Your task to perform on an android device: Open Android settings Image 0: 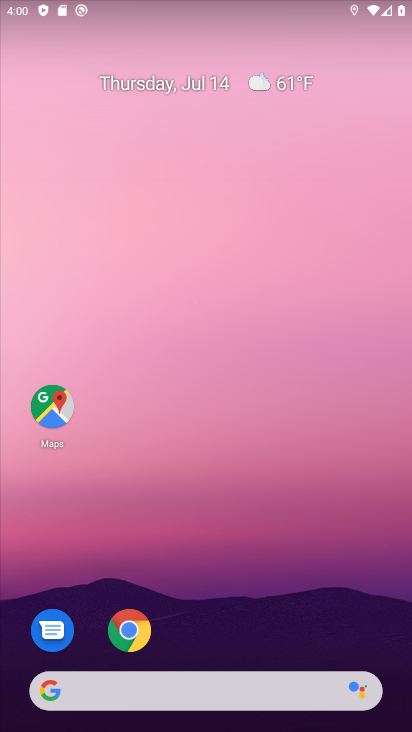
Step 0: drag from (240, 647) to (95, 74)
Your task to perform on an android device: Open Android settings Image 1: 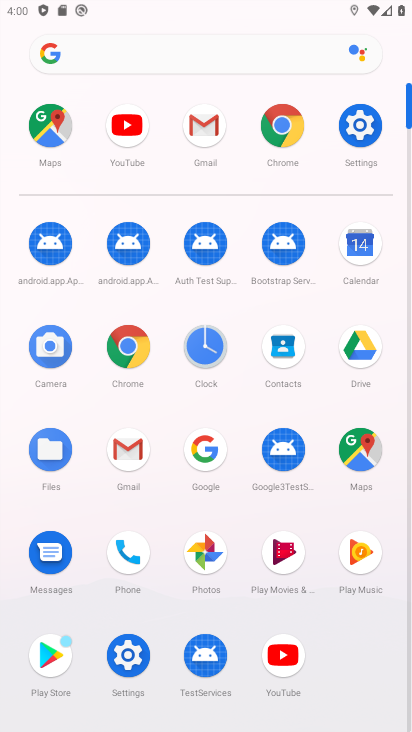
Step 1: click (343, 122)
Your task to perform on an android device: Open Android settings Image 2: 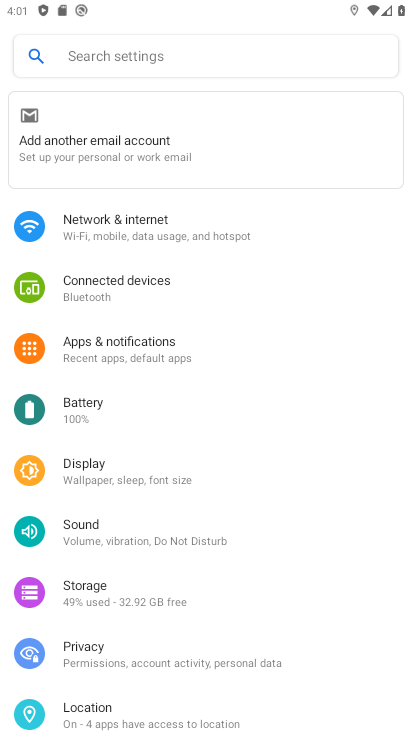
Step 2: task complete